Your task to perform on an android device: Open privacy settings Image 0: 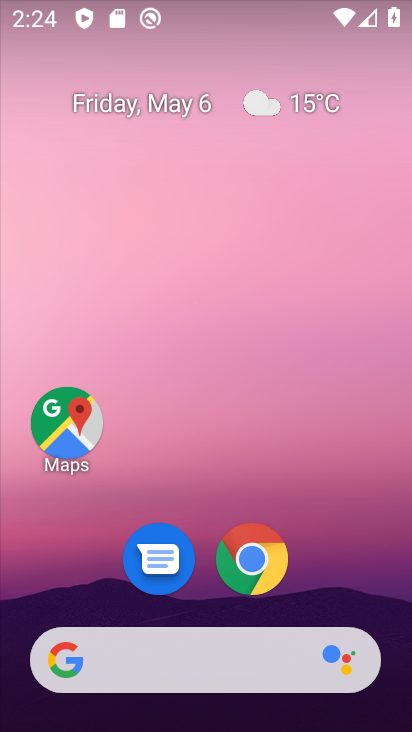
Step 0: drag from (333, 576) to (282, 195)
Your task to perform on an android device: Open privacy settings Image 1: 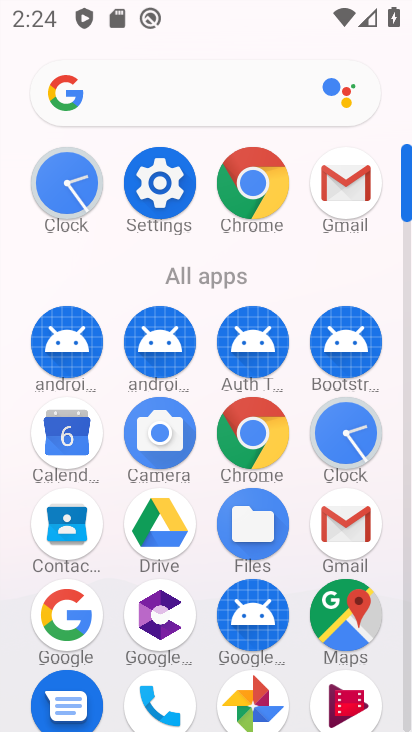
Step 1: click (170, 166)
Your task to perform on an android device: Open privacy settings Image 2: 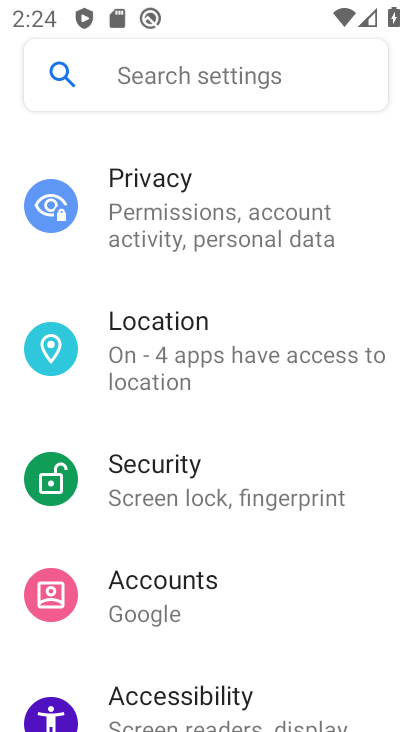
Step 2: click (235, 232)
Your task to perform on an android device: Open privacy settings Image 3: 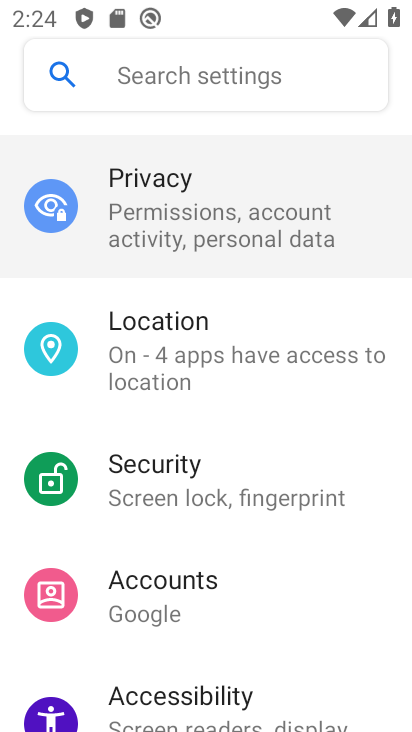
Step 3: task complete